Your task to perform on an android device: Turn on the flashlight Image 0: 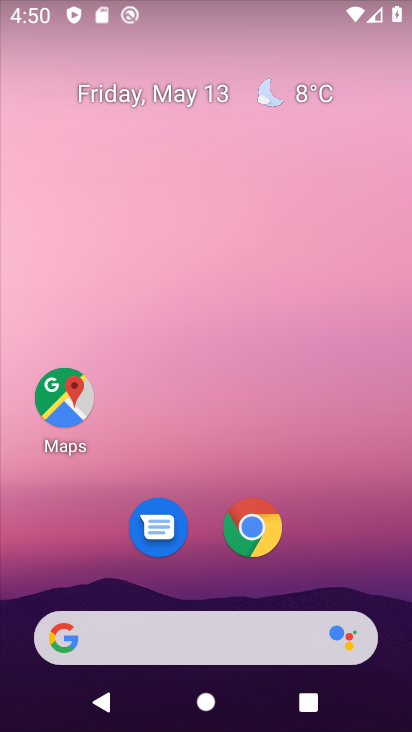
Step 0: drag from (214, 619) to (214, 141)
Your task to perform on an android device: Turn on the flashlight Image 1: 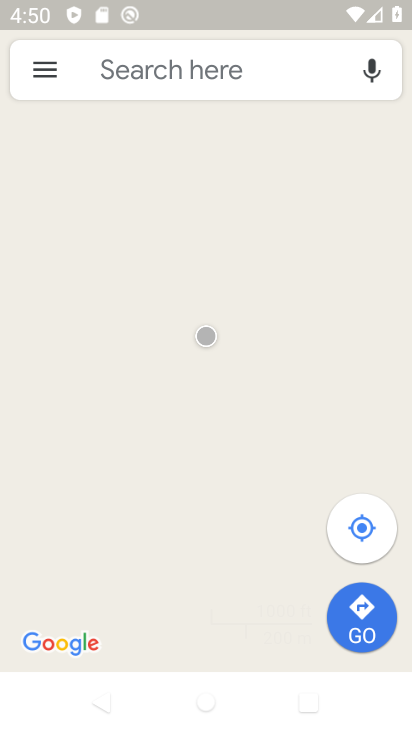
Step 1: drag from (251, 3) to (224, 398)
Your task to perform on an android device: Turn on the flashlight Image 2: 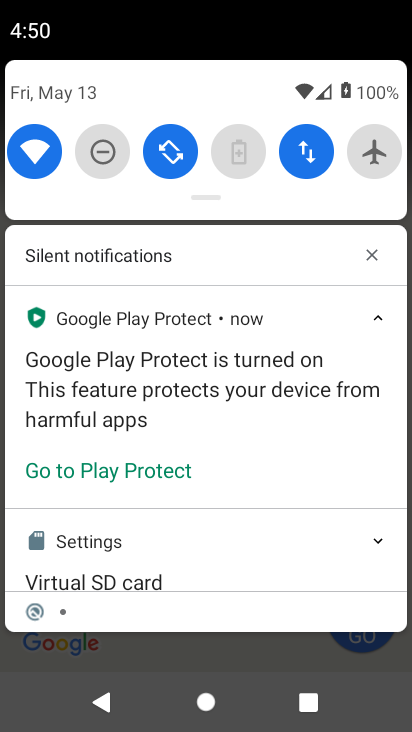
Step 2: drag from (268, 177) to (276, 479)
Your task to perform on an android device: Turn on the flashlight Image 3: 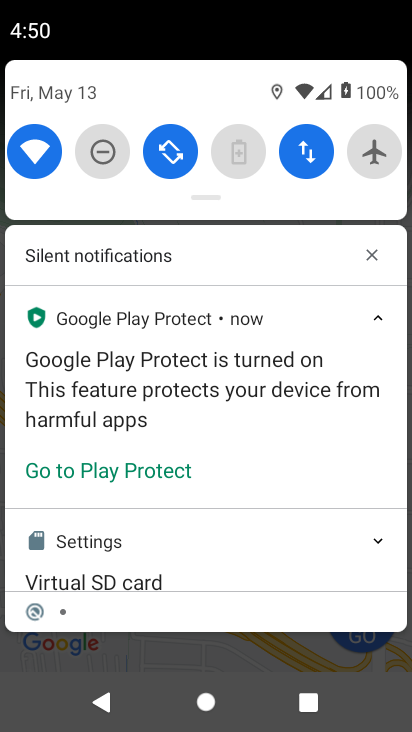
Step 3: drag from (229, 153) to (229, 499)
Your task to perform on an android device: Turn on the flashlight Image 4: 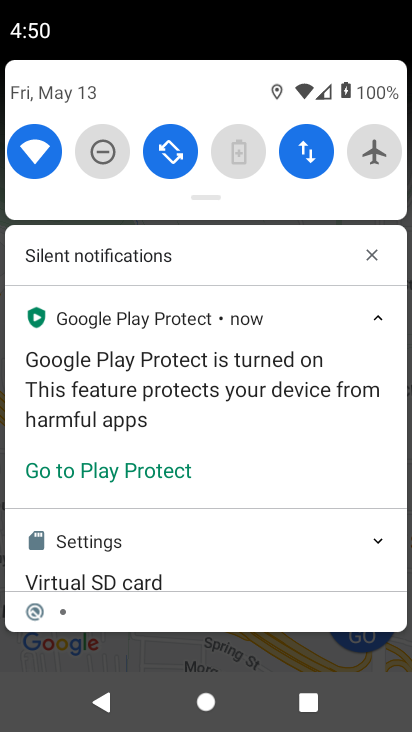
Step 4: drag from (94, 96) to (110, 481)
Your task to perform on an android device: Turn on the flashlight Image 5: 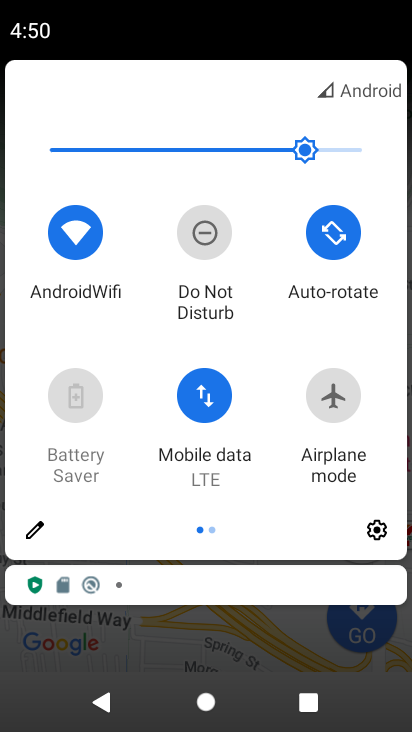
Step 5: click (41, 528)
Your task to perform on an android device: Turn on the flashlight Image 6: 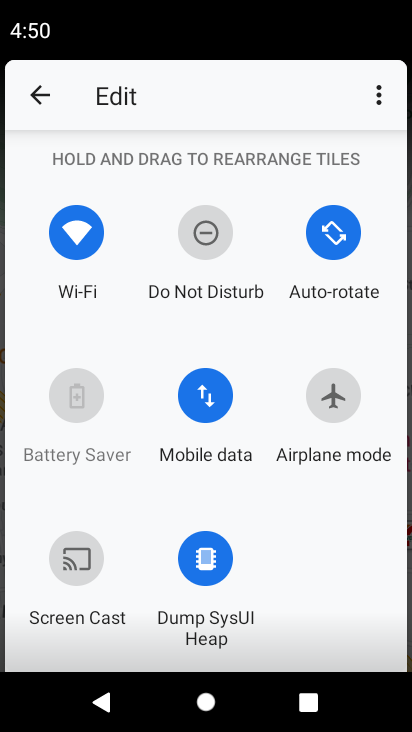
Step 6: task complete